Your task to perform on an android device: refresh tabs in the chrome app Image 0: 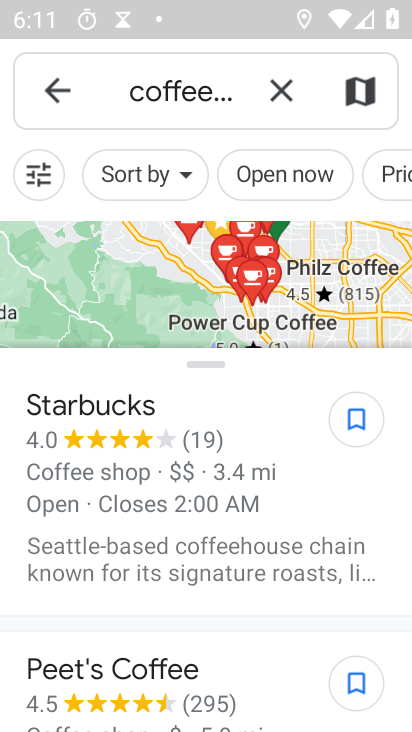
Step 0: press home button
Your task to perform on an android device: refresh tabs in the chrome app Image 1: 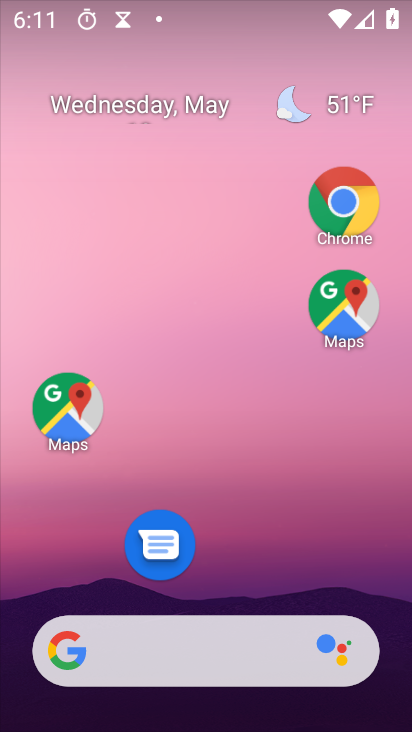
Step 1: click (352, 211)
Your task to perform on an android device: refresh tabs in the chrome app Image 2: 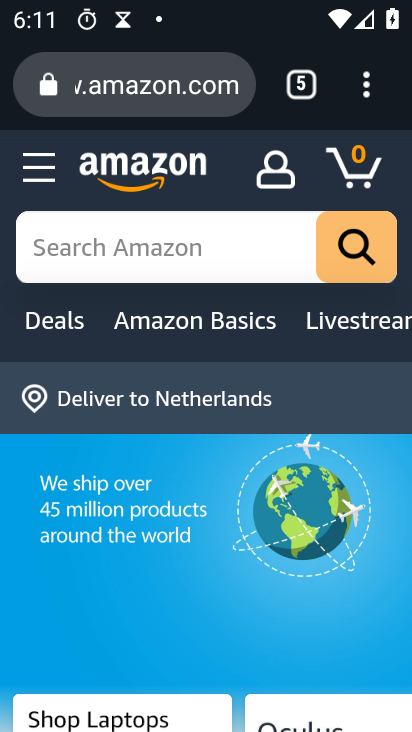
Step 2: click (365, 86)
Your task to perform on an android device: refresh tabs in the chrome app Image 3: 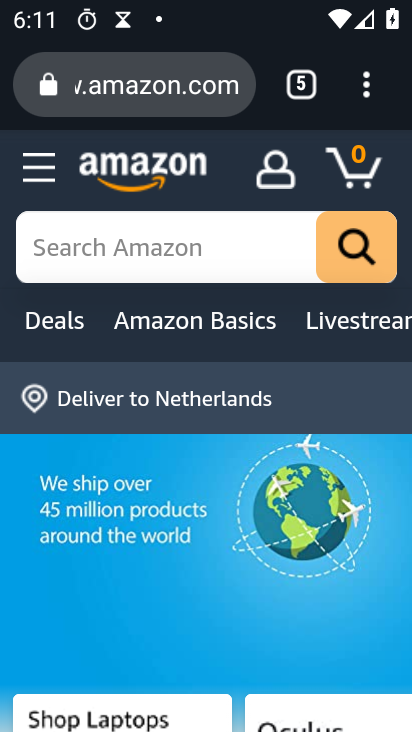
Step 3: click (373, 94)
Your task to perform on an android device: refresh tabs in the chrome app Image 4: 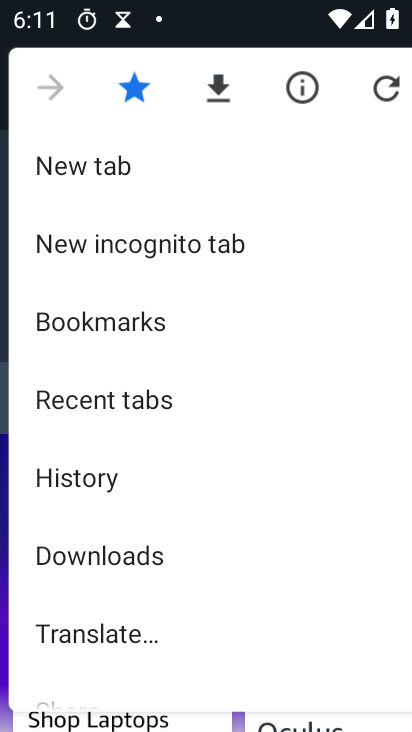
Step 4: click (382, 96)
Your task to perform on an android device: refresh tabs in the chrome app Image 5: 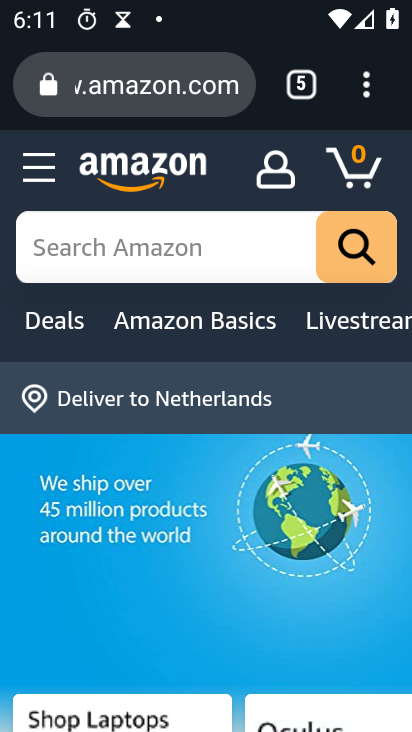
Step 5: task complete